Your task to perform on an android device: Go to Yahoo.com Image 0: 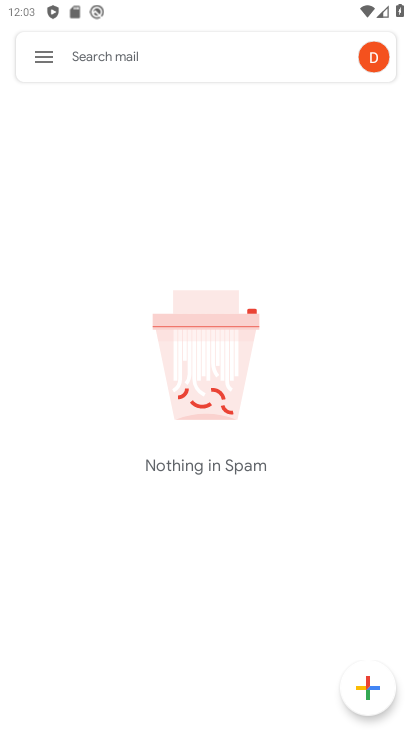
Step 0: press home button
Your task to perform on an android device: Go to Yahoo.com Image 1: 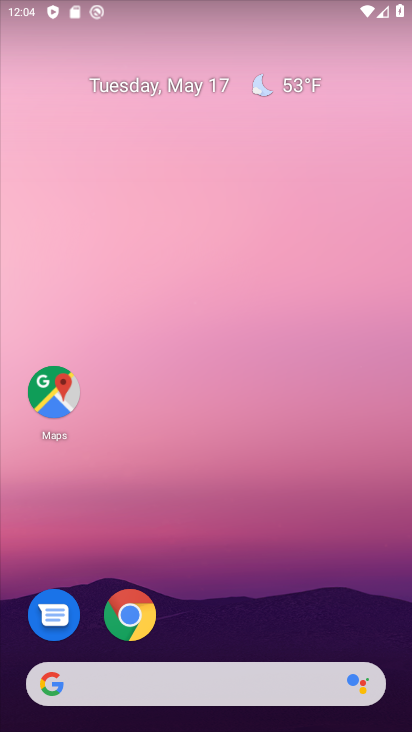
Step 1: click (115, 621)
Your task to perform on an android device: Go to Yahoo.com Image 2: 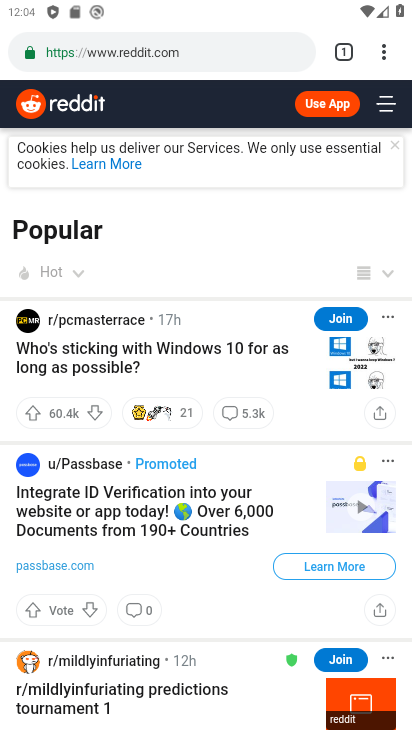
Step 2: click (239, 67)
Your task to perform on an android device: Go to Yahoo.com Image 3: 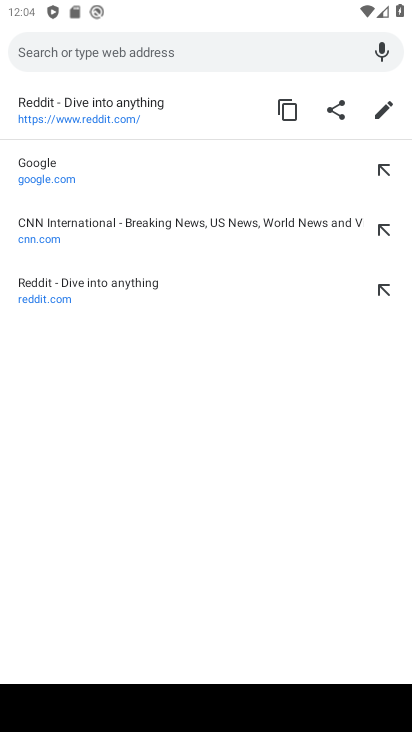
Step 3: type "yahoo.com"
Your task to perform on an android device: Go to Yahoo.com Image 4: 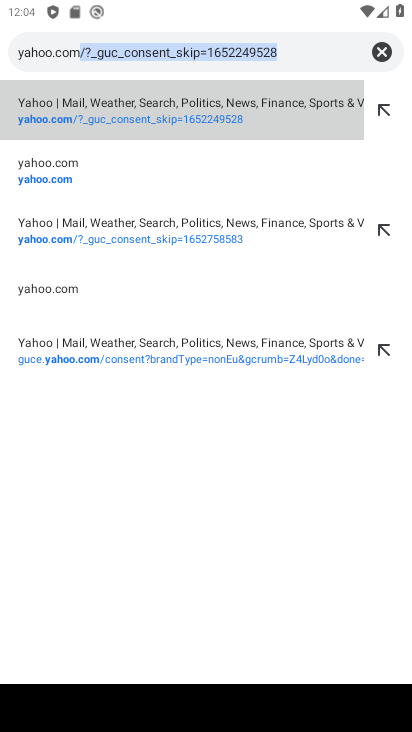
Step 4: click (90, 97)
Your task to perform on an android device: Go to Yahoo.com Image 5: 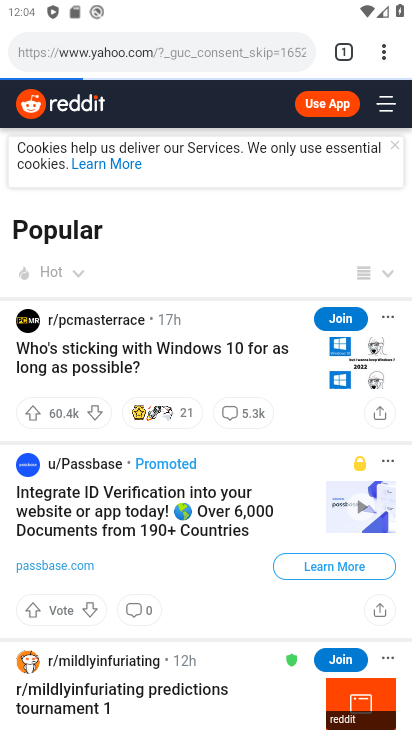
Step 5: task complete